Your task to perform on an android device: What's the weather going to be this weekend? Image 0: 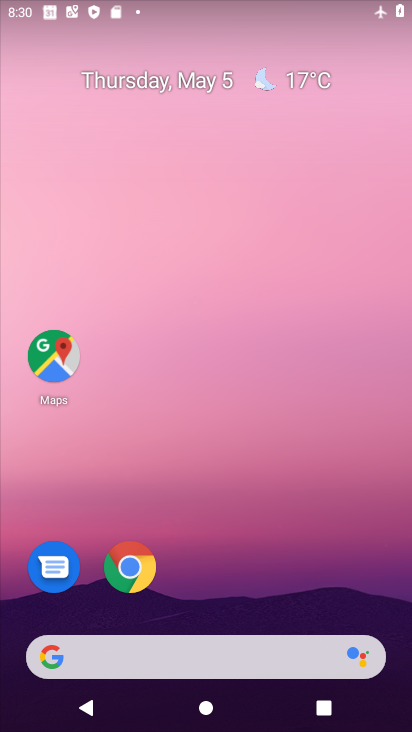
Step 0: drag from (238, 562) to (256, 532)
Your task to perform on an android device: What's the weather going to be this weekend? Image 1: 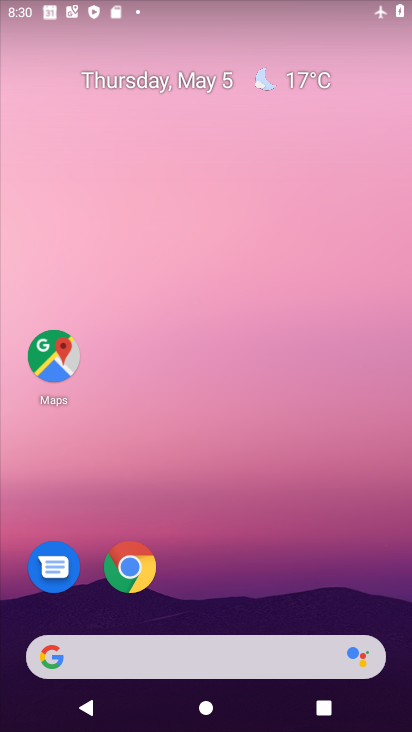
Step 1: click (299, 81)
Your task to perform on an android device: What's the weather going to be this weekend? Image 2: 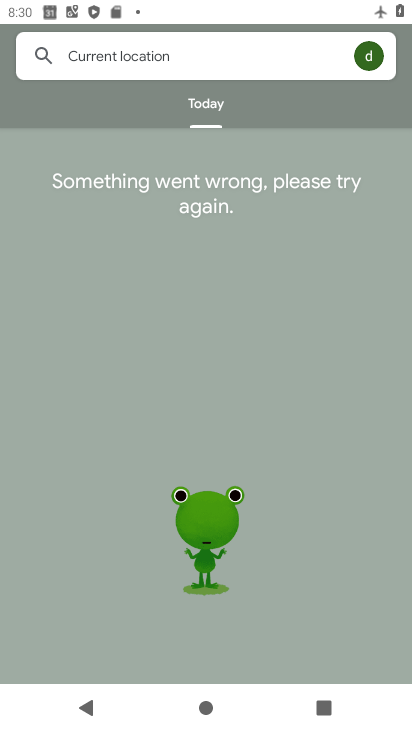
Step 2: task complete